Your task to perform on an android device: set the stopwatch Image 0: 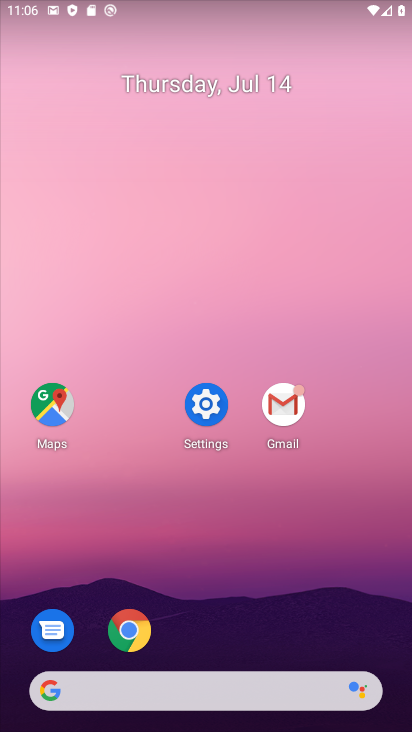
Step 0: drag from (386, 681) to (349, 267)
Your task to perform on an android device: set the stopwatch Image 1: 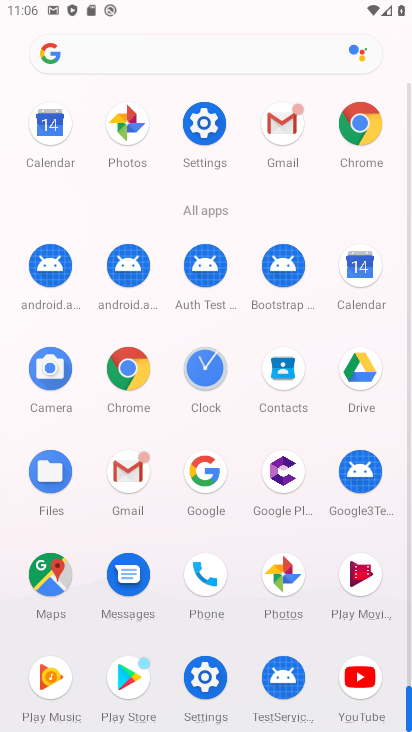
Step 1: drag from (198, 367) to (129, 400)
Your task to perform on an android device: set the stopwatch Image 2: 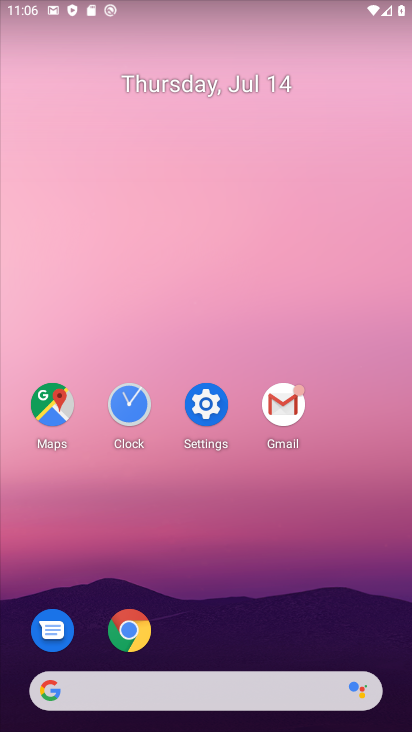
Step 2: click (107, 399)
Your task to perform on an android device: set the stopwatch Image 3: 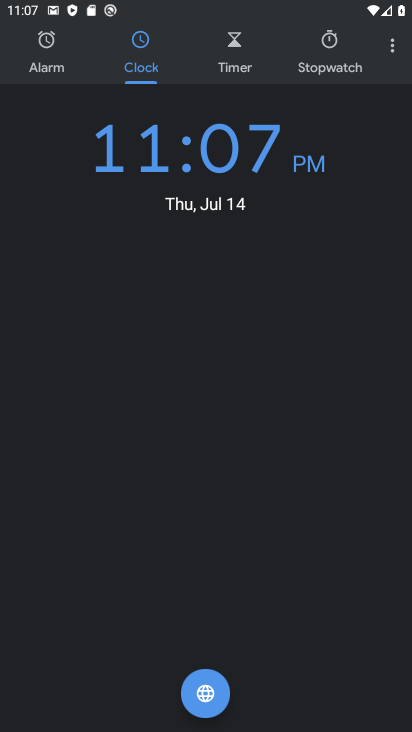
Step 3: click (331, 57)
Your task to perform on an android device: set the stopwatch Image 4: 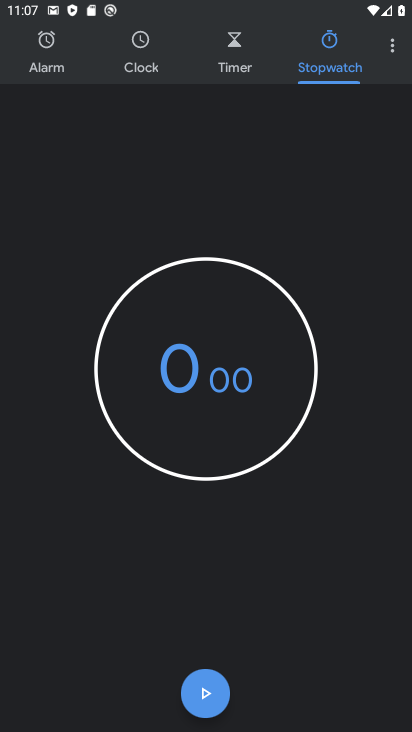
Step 4: click (207, 704)
Your task to perform on an android device: set the stopwatch Image 5: 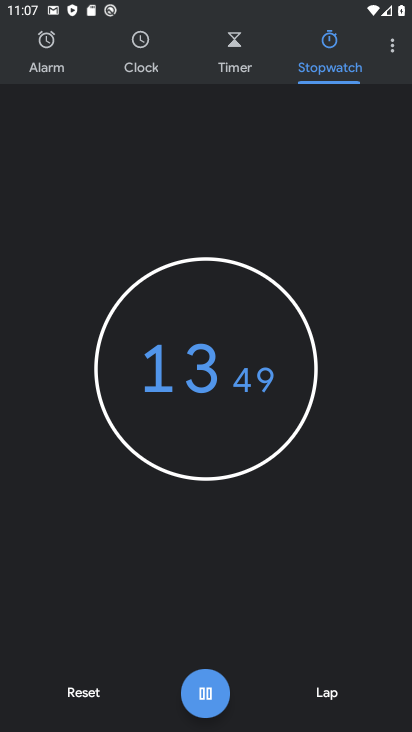
Step 5: task complete